Your task to perform on an android device: turn on notifications settings in the gmail app Image 0: 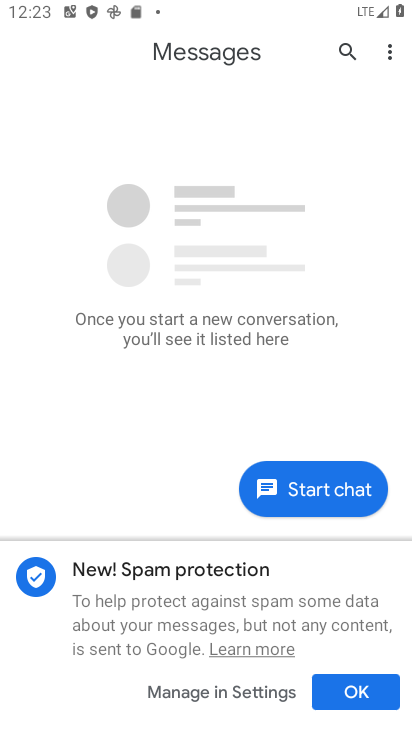
Step 0: press home button
Your task to perform on an android device: turn on notifications settings in the gmail app Image 1: 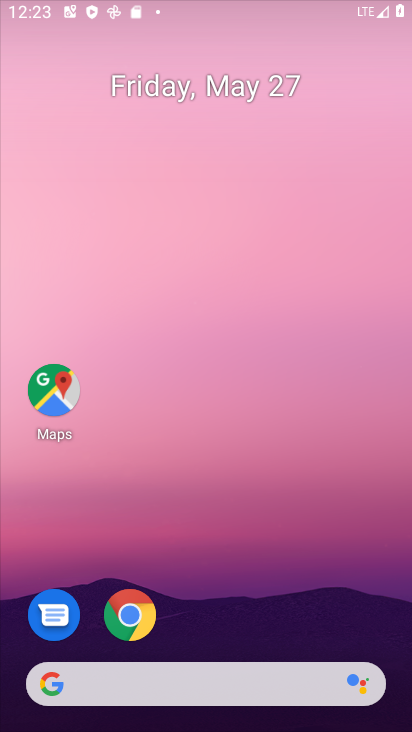
Step 1: drag from (165, 649) to (291, 67)
Your task to perform on an android device: turn on notifications settings in the gmail app Image 2: 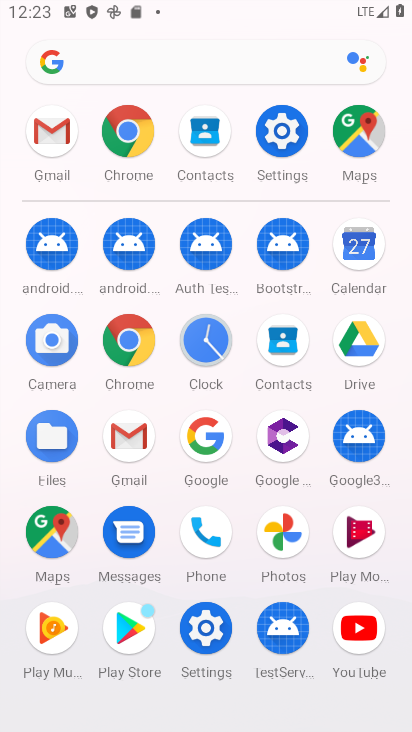
Step 2: click (110, 433)
Your task to perform on an android device: turn on notifications settings in the gmail app Image 3: 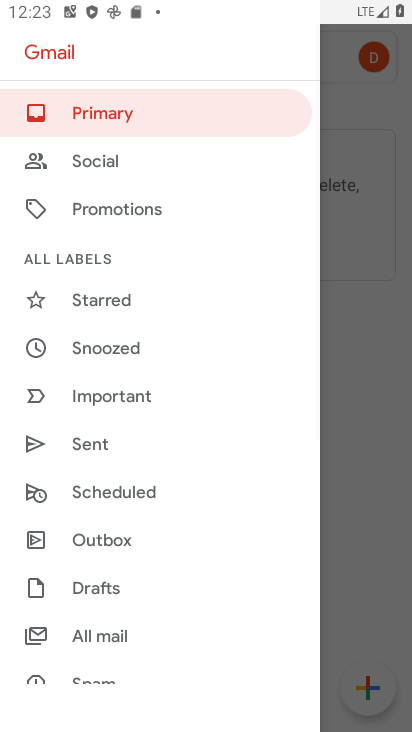
Step 3: drag from (179, 624) to (245, 16)
Your task to perform on an android device: turn on notifications settings in the gmail app Image 4: 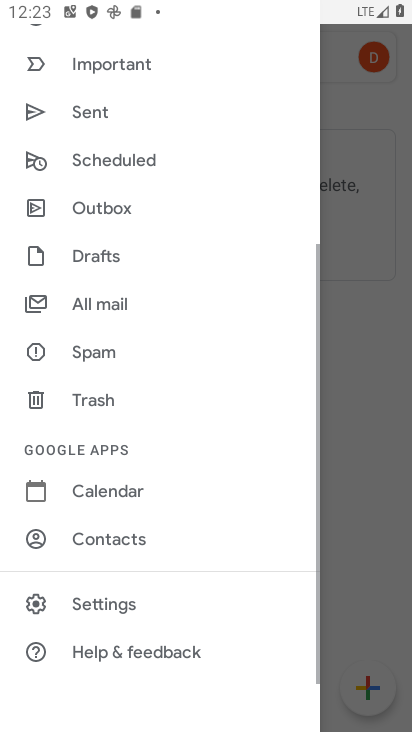
Step 4: click (128, 590)
Your task to perform on an android device: turn on notifications settings in the gmail app Image 5: 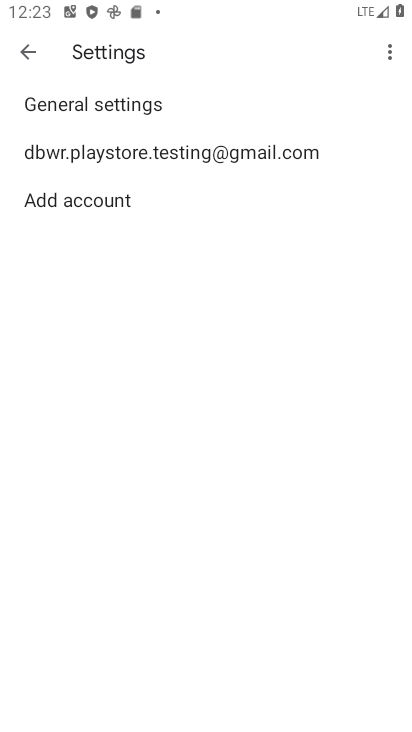
Step 5: click (205, 150)
Your task to perform on an android device: turn on notifications settings in the gmail app Image 6: 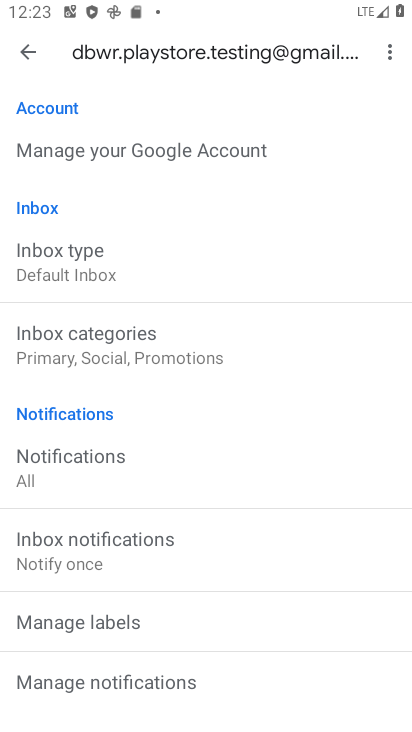
Step 6: click (117, 679)
Your task to perform on an android device: turn on notifications settings in the gmail app Image 7: 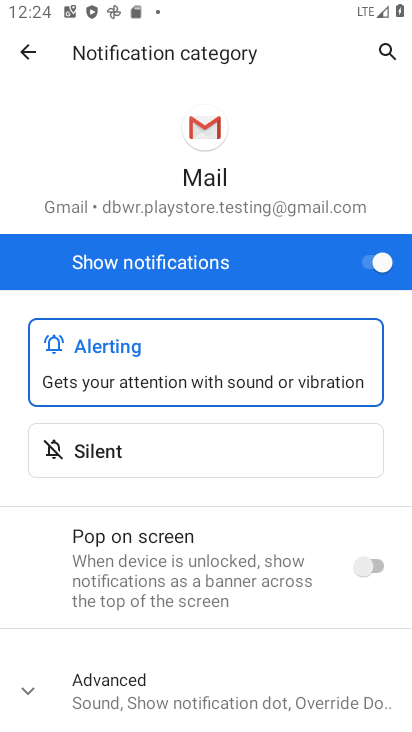
Step 7: task complete